Your task to perform on an android device: turn pop-ups on in chrome Image 0: 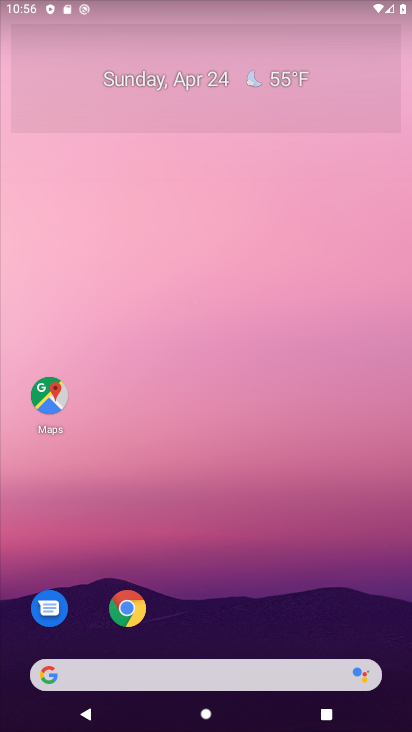
Step 0: click (124, 607)
Your task to perform on an android device: turn pop-ups on in chrome Image 1: 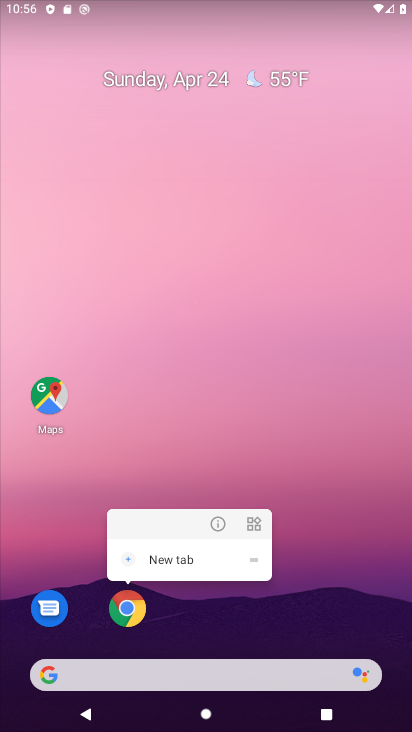
Step 1: click (124, 607)
Your task to perform on an android device: turn pop-ups on in chrome Image 2: 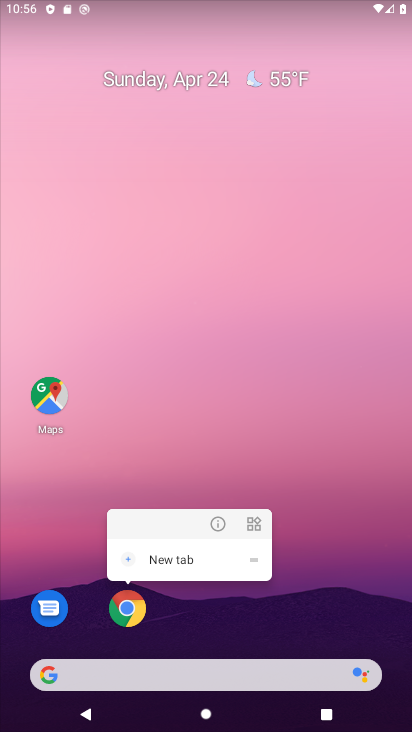
Step 2: click (125, 606)
Your task to perform on an android device: turn pop-ups on in chrome Image 3: 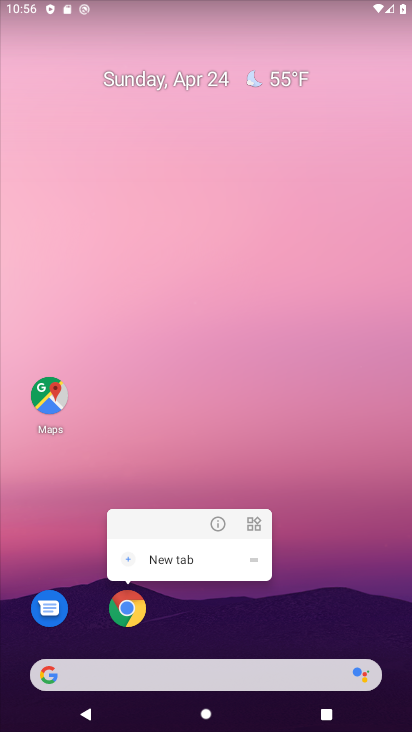
Step 3: click (127, 599)
Your task to perform on an android device: turn pop-ups on in chrome Image 4: 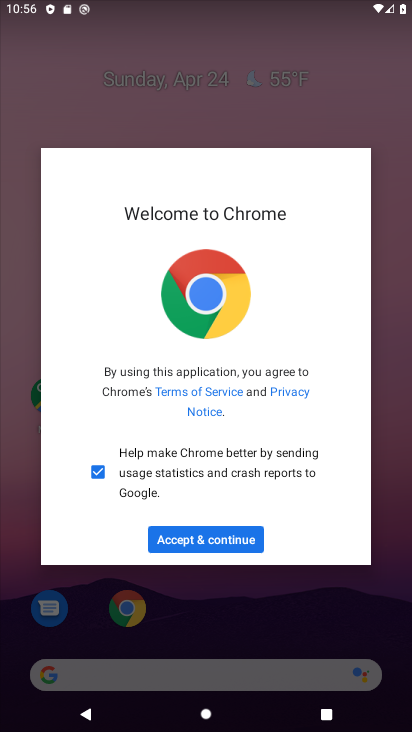
Step 4: click (240, 535)
Your task to perform on an android device: turn pop-ups on in chrome Image 5: 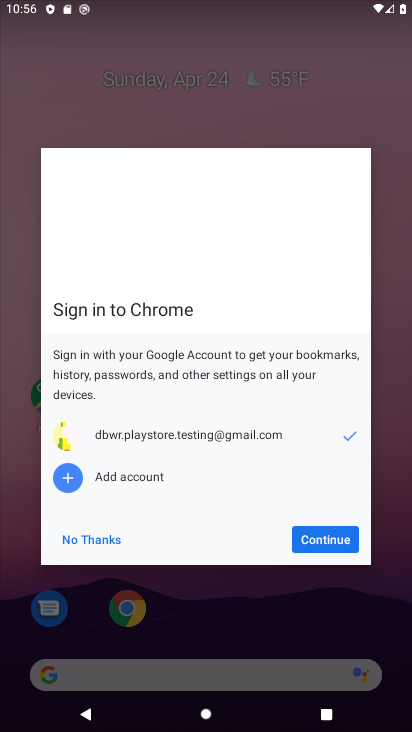
Step 5: click (330, 532)
Your task to perform on an android device: turn pop-ups on in chrome Image 6: 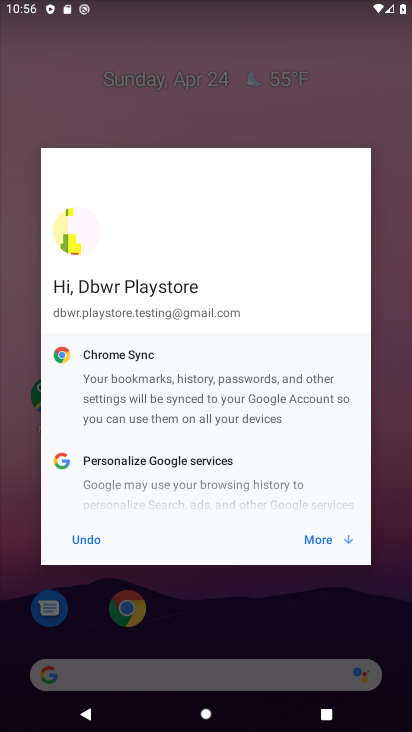
Step 6: click (318, 534)
Your task to perform on an android device: turn pop-ups on in chrome Image 7: 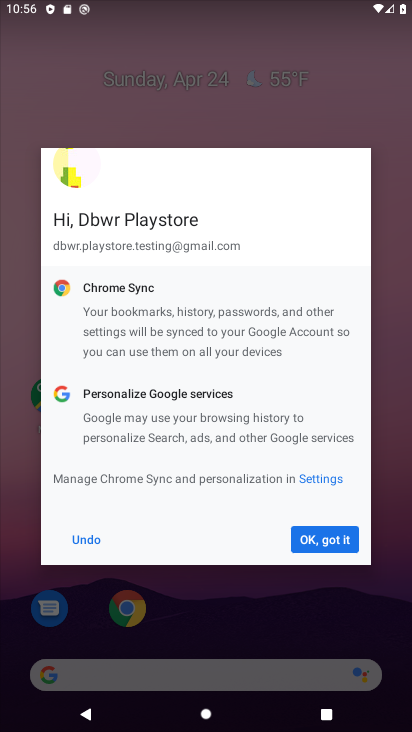
Step 7: click (325, 534)
Your task to perform on an android device: turn pop-ups on in chrome Image 8: 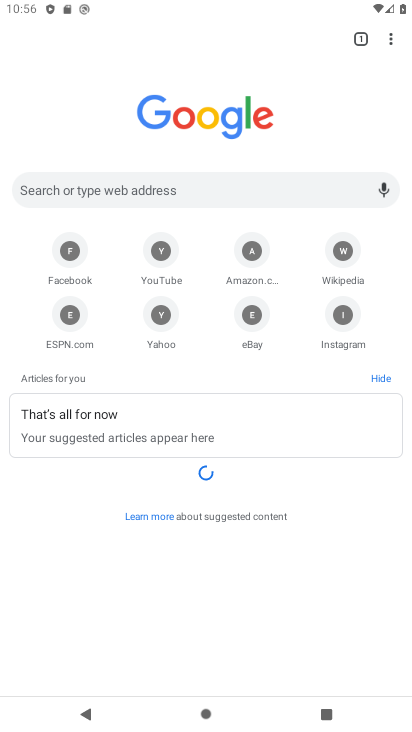
Step 8: drag from (387, 38) to (236, 327)
Your task to perform on an android device: turn pop-ups on in chrome Image 9: 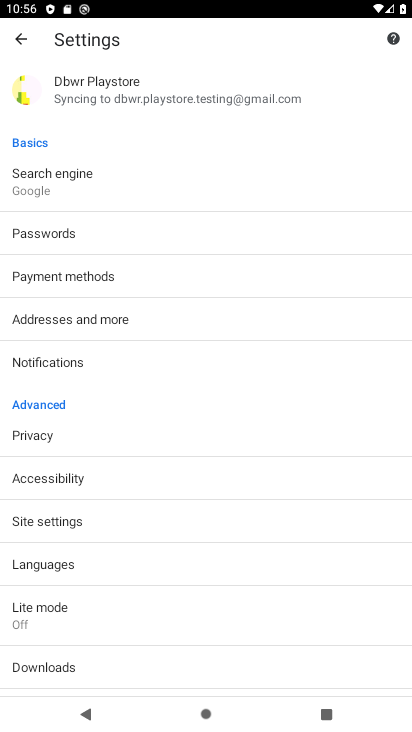
Step 9: click (80, 513)
Your task to perform on an android device: turn pop-ups on in chrome Image 10: 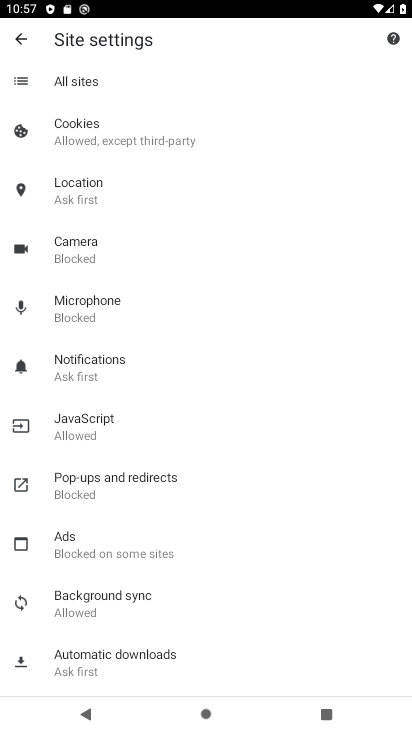
Step 10: click (132, 480)
Your task to perform on an android device: turn pop-ups on in chrome Image 11: 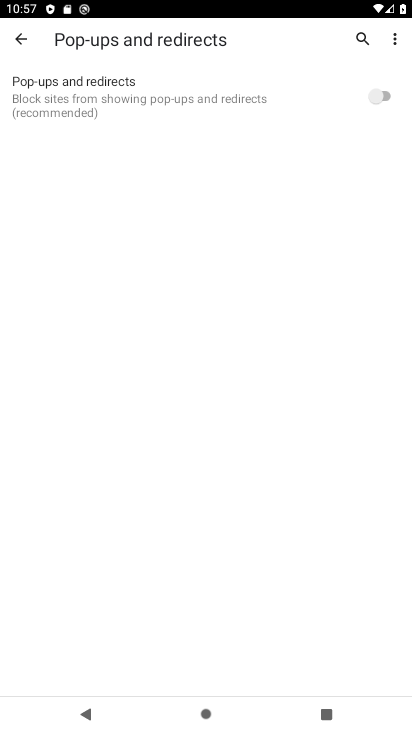
Step 11: click (373, 93)
Your task to perform on an android device: turn pop-ups on in chrome Image 12: 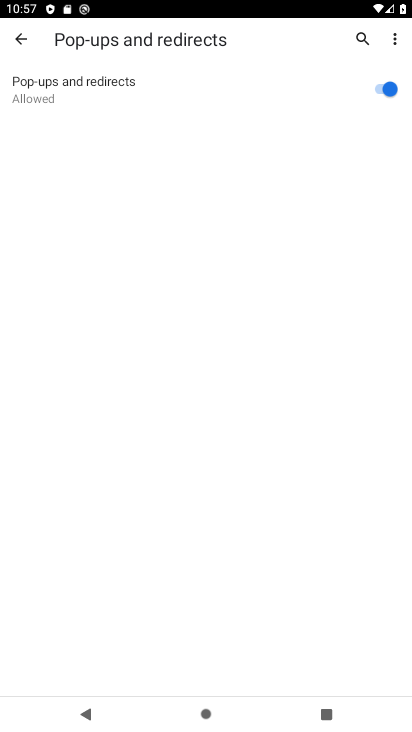
Step 12: task complete